Your task to perform on an android device: Open calendar and show me the second week of next month Image 0: 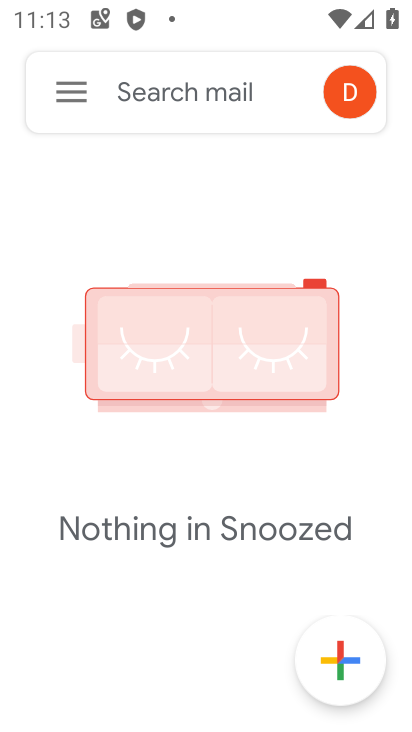
Step 0: press home button
Your task to perform on an android device: Open calendar and show me the second week of next month Image 1: 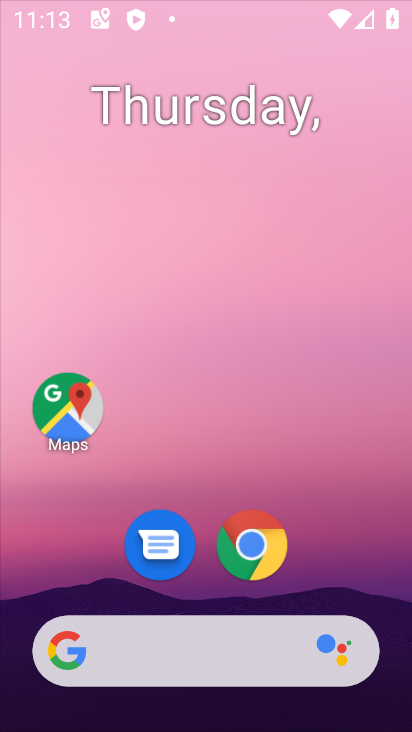
Step 1: drag from (327, 562) to (275, 112)
Your task to perform on an android device: Open calendar and show me the second week of next month Image 2: 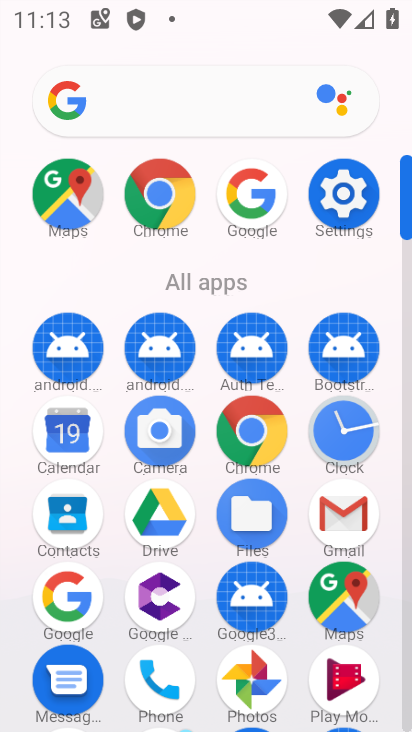
Step 2: click (342, 188)
Your task to perform on an android device: Open calendar and show me the second week of next month Image 3: 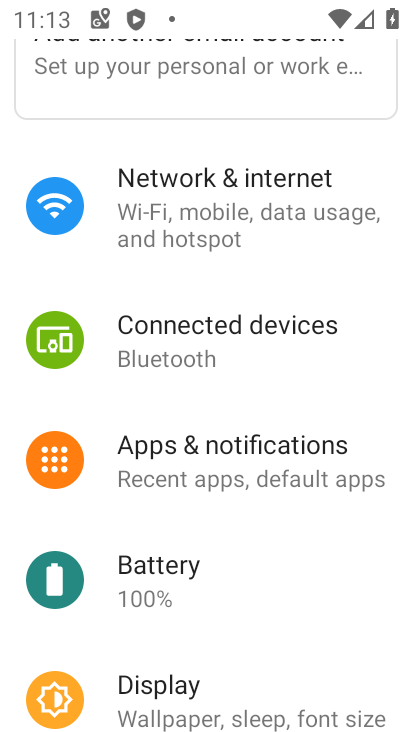
Step 3: click (209, 238)
Your task to perform on an android device: Open calendar and show me the second week of next month Image 4: 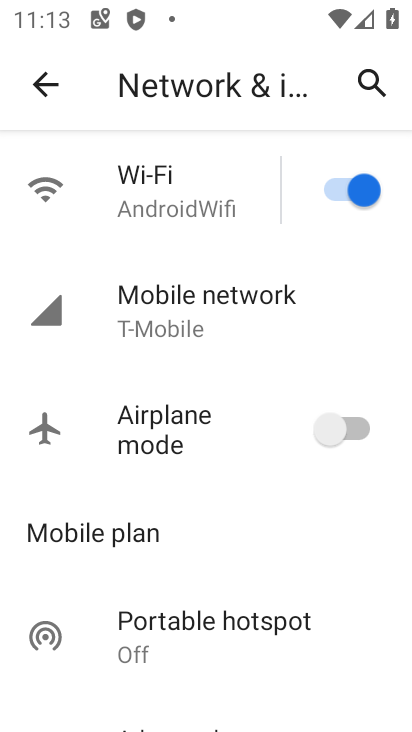
Step 4: task complete